Your task to perform on an android device: Is it going to rain this weekend? Image 0: 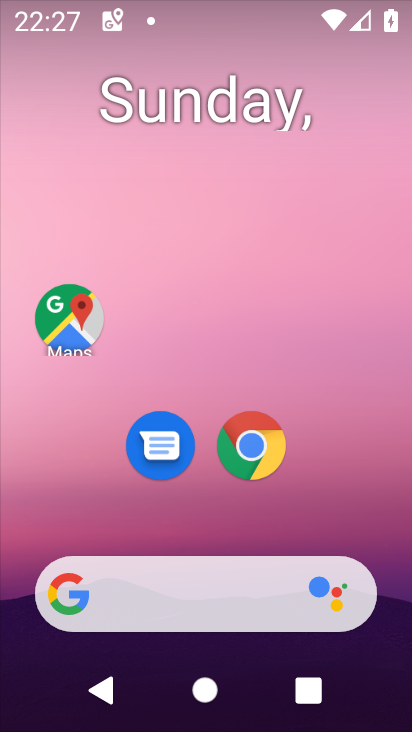
Step 0: press home button
Your task to perform on an android device: Is it going to rain this weekend? Image 1: 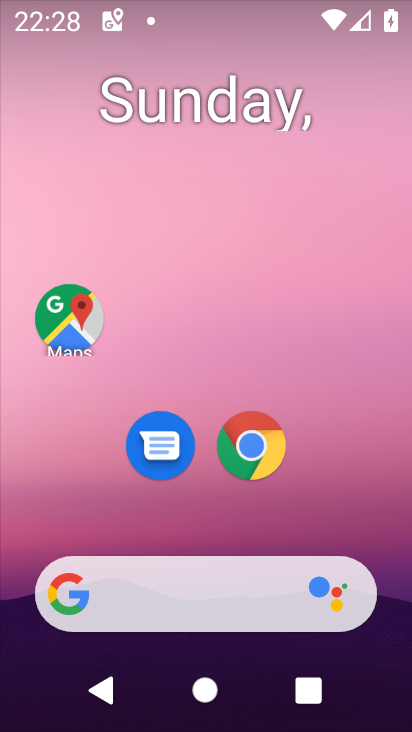
Step 1: click (252, 454)
Your task to perform on an android device: Is it going to rain this weekend? Image 2: 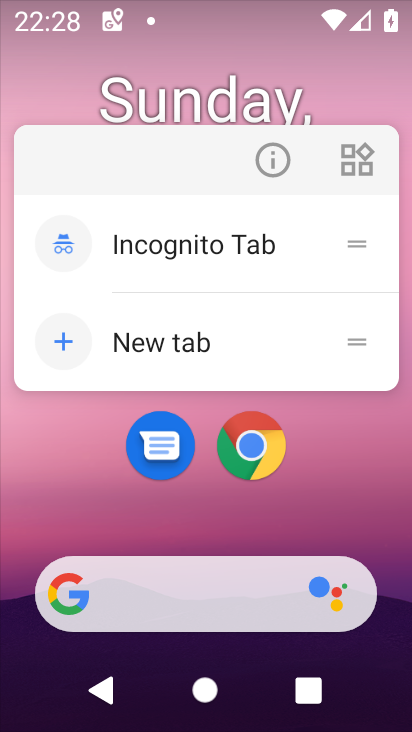
Step 2: click (252, 454)
Your task to perform on an android device: Is it going to rain this weekend? Image 3: 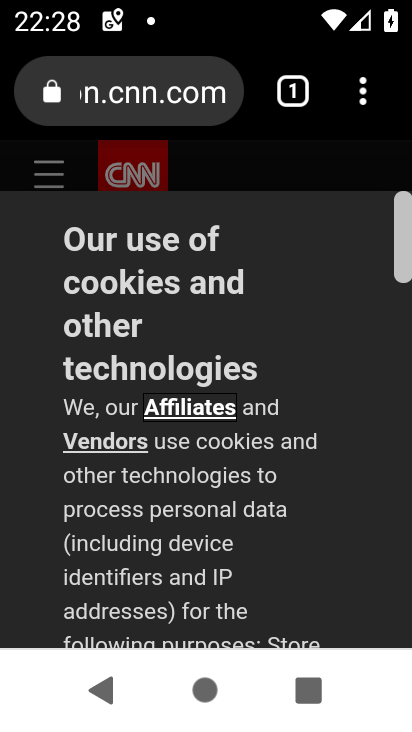
Step 3: click (125, 110)
Your task to perform on an android device: Is it going to rain this weekend? Image 4: 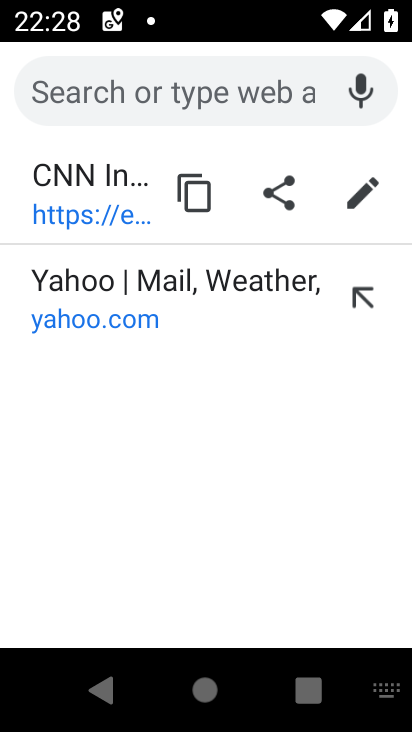
Step 4: type ""
Your task to perform on an android device: Is it going to rain this weekend? Image 5: 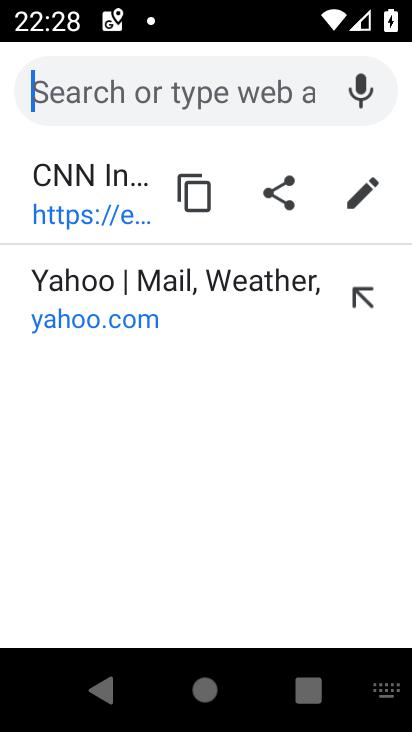
Step 5: type "Is it going to rain this weekend?"
Your task to perform on an android device: Is it going to rain this weekend? Image 6: 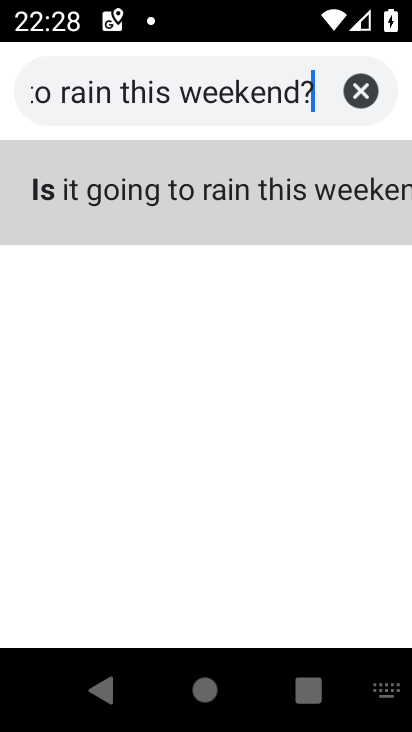
Step 6: type ""
Your task to perform on an android device: Is it going to rain this weekend? Image 7: 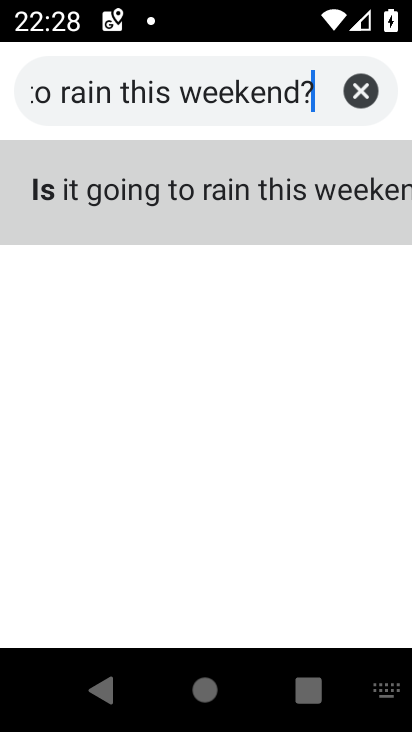
Step 7: click (79, 207)
Your task to perform on an android device: Is it going to rain this weekend? Image 8: 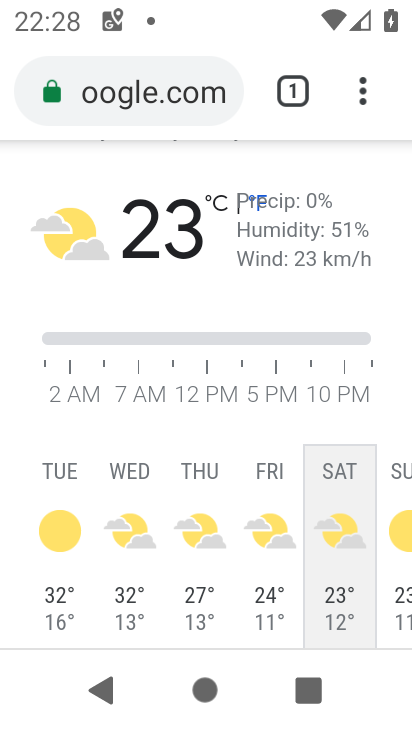
Step 8: task complete